Your task to perform on an android device: Open Google Chrome and click the shortcut for Amazon.com Image 0: 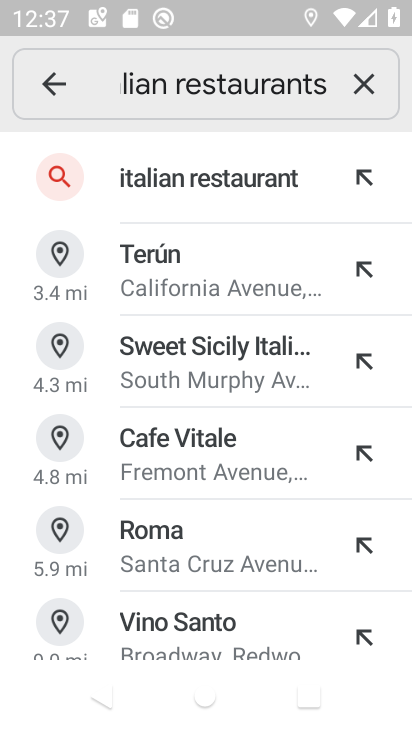
Step 0: press home button
Your task to perform on an android device: Open Google Chrome and click the shortcut for Amazon.com Image 1: 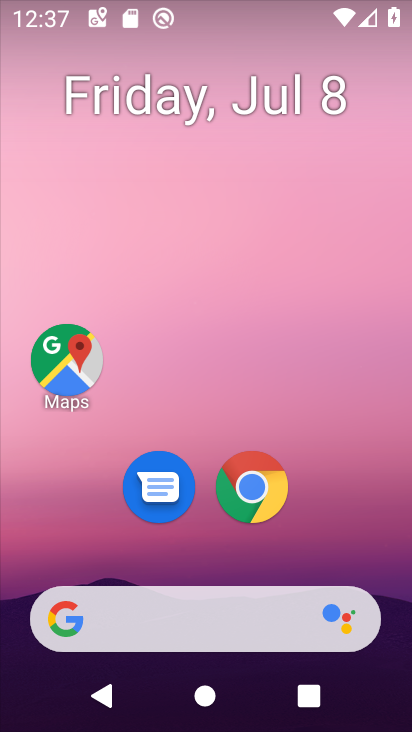
Step 1: drag from (360, 527) to (352, 135)
Your task to perform on an android device: Open Google Chrome and click the shortcut for Amazon.com Image 2: 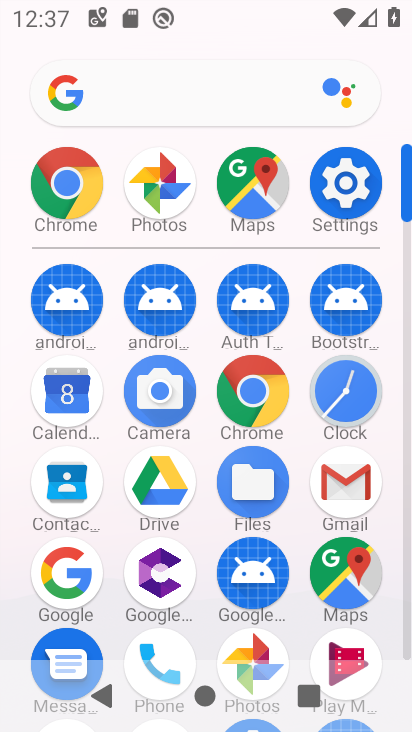
Step 2: click (273, 392)
Your task to perform on an android device: Open Google Chrome and click the shortcut for Amazon.com Image 3: 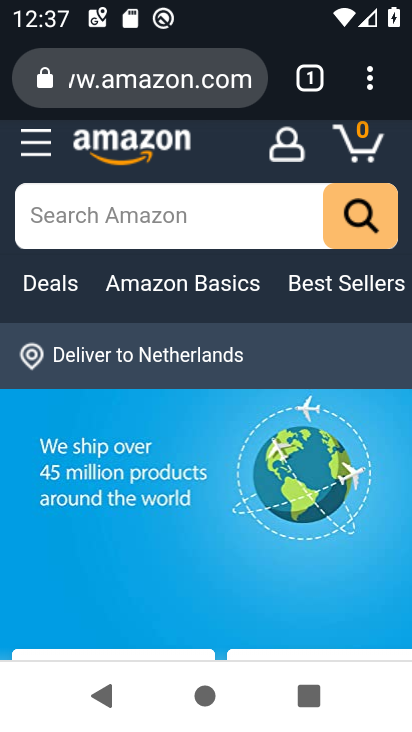
Step 3: task complete